Your task to perform on an android device: change timer sound Image 0: 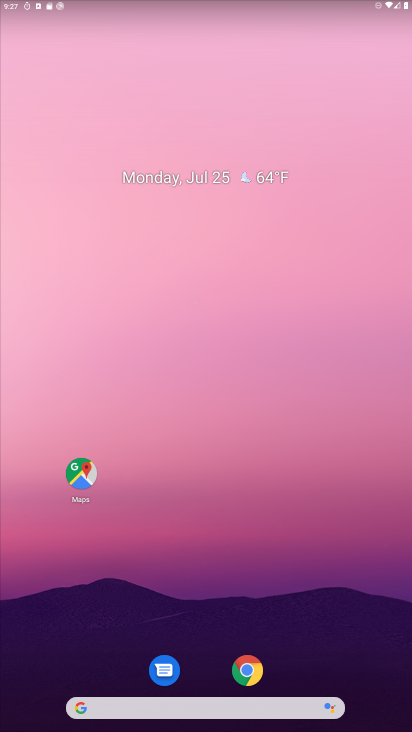
Step 0: drag from (341, 634) to (185, 83)
Your task to perform on an android device: change timer sound Image 1: 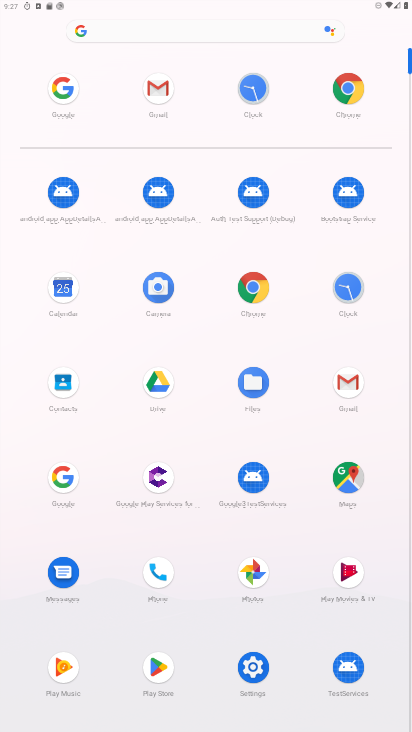
Step 1: click (344, 290)
Your task to perform on an android device: change timer sound Image 2: 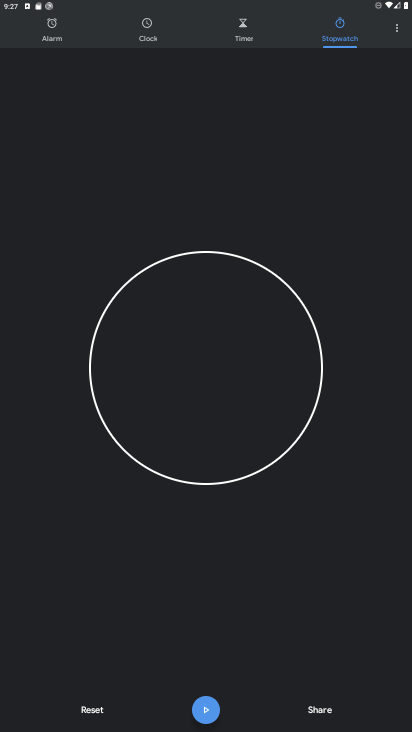
Step 2: click (399, 27)
Your task to perform on an android device: change timer sound Image 3: 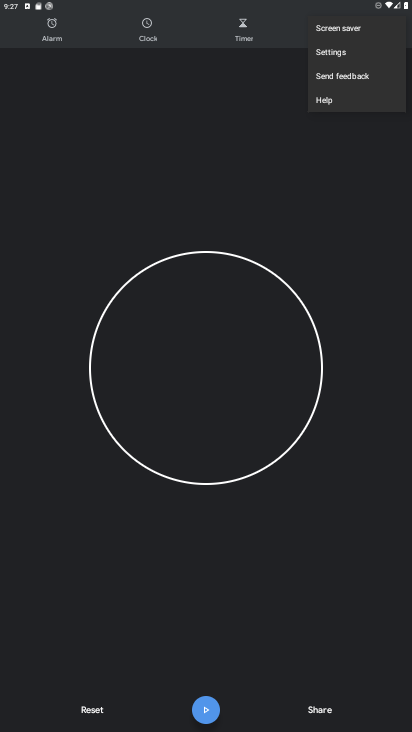
Step 3: click (339, 57)
Your task to perform on an android device: change timer sound Image 4: 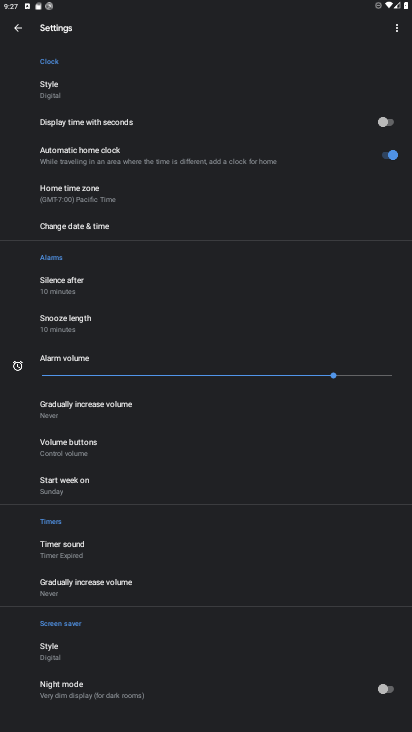
Step 4: click (85, 556)
Your task to perform on an android device: change timer sound Image 5: 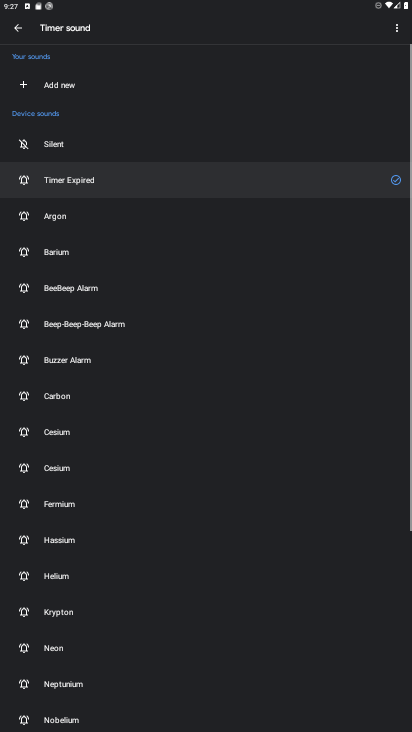
Step 5: click (95, 403)
Your task to perform on an android device: change timer sound Image 6: 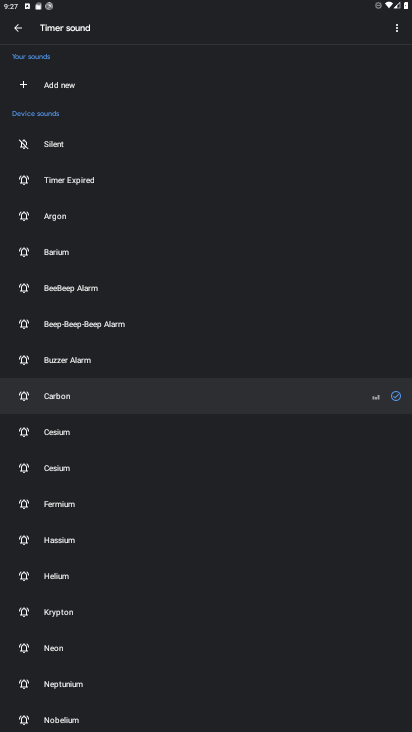
Step 6: task complete